Your task to perform on an android device: Open Android settings Image 0: 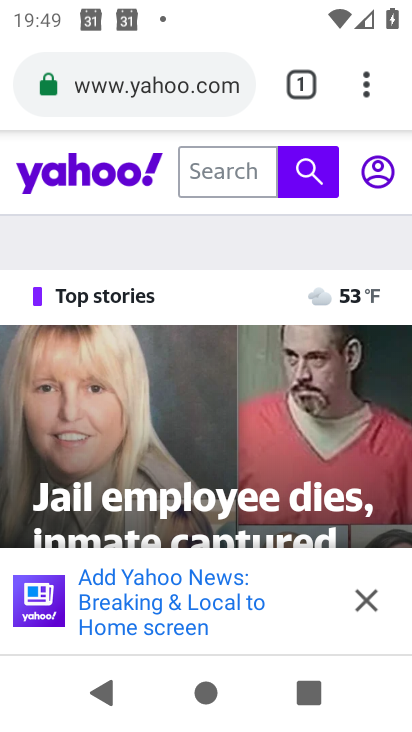
Step 0: press home button
Your task to perform on an android device: Open Android settings Image 1: 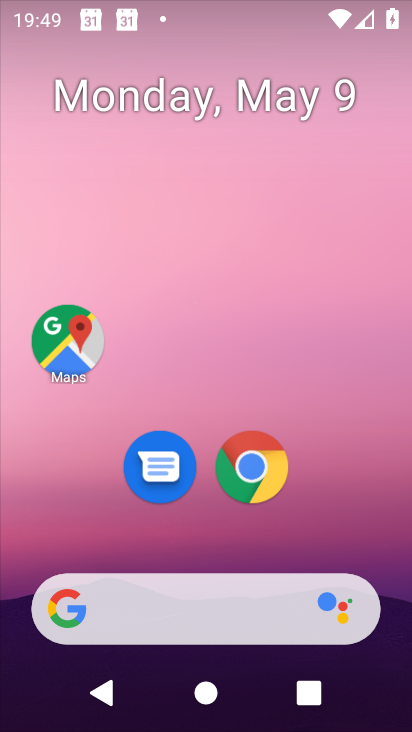
Step 1: drag from (340, 533) to (359, 183)
Your task to perform on an android device: Open Android settings Image 2: 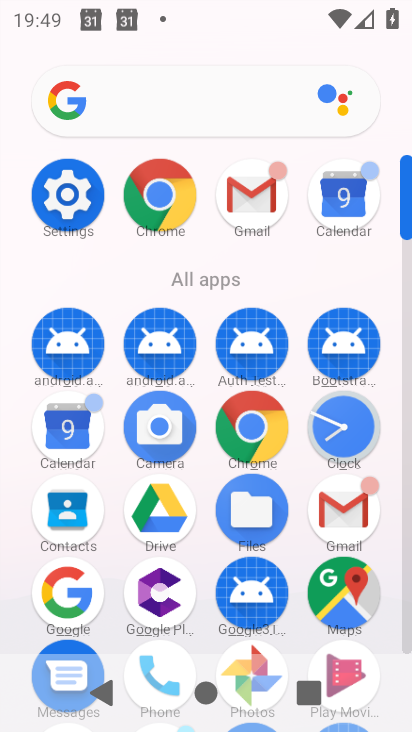
Step 2: click (82, 203)
Your task to perform on an android device: Open Android settings Image 3: 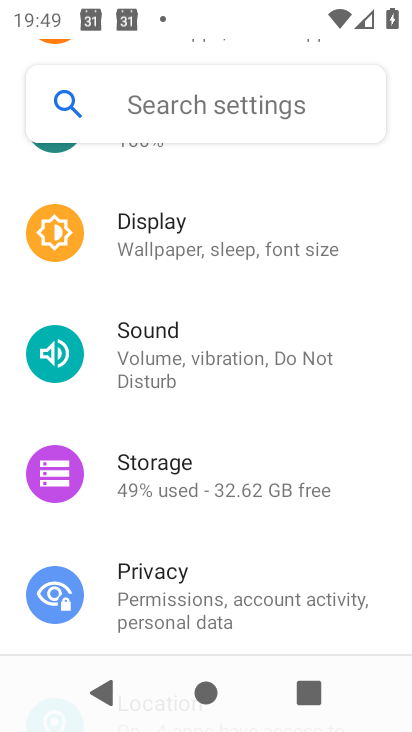
Step 3: task complete